Your task to perform on an android device: turn notification dots off Image 0: 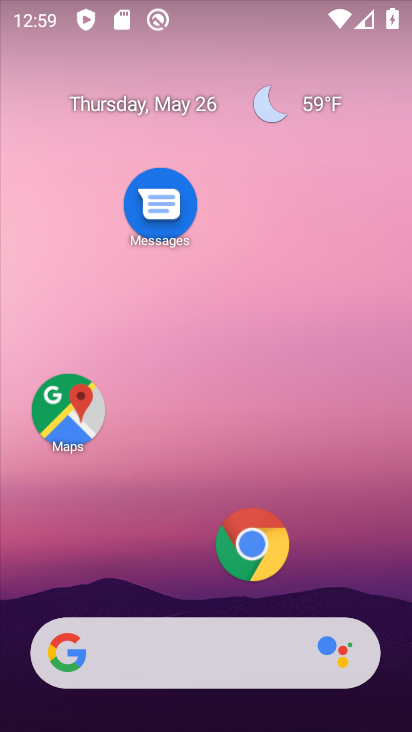
Step 0: drag from (345, 573) to (301, 50)
Your task to perform on an android device: turn notification dots off Image 1: 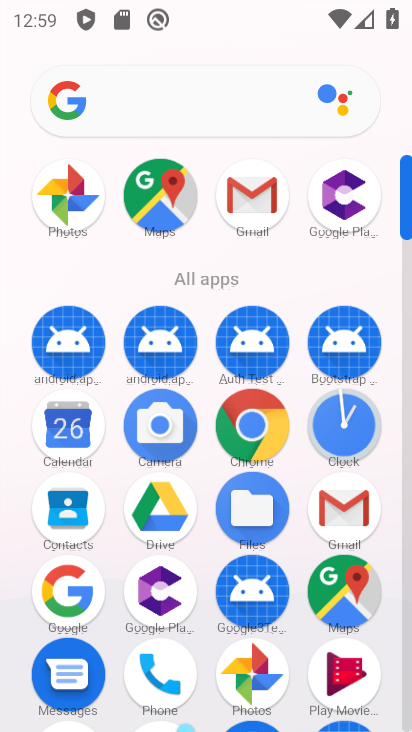
Step 1: click (267, 216)
Your task to perform on an android device: turn notification dots off Image 2: 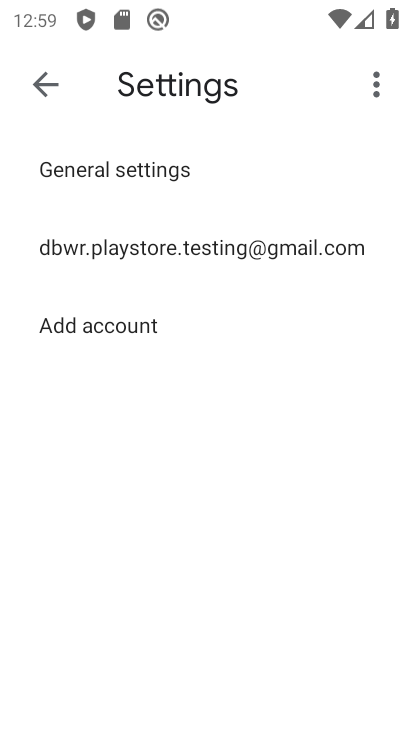
Step 2: click (138, 254)
Your task to perform on an android device: turn notification dots off Image 3: 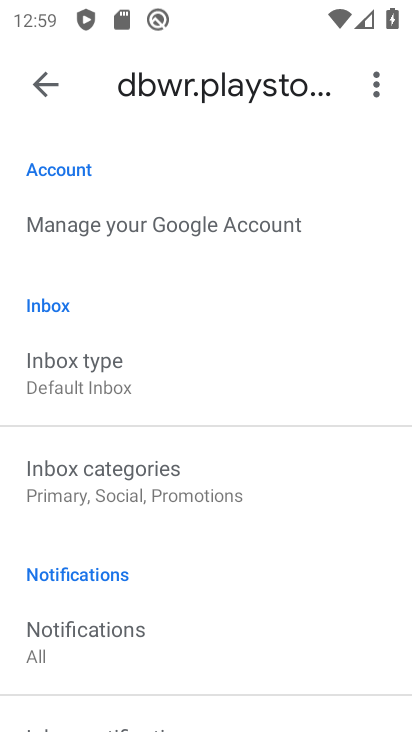
Step 3: click (181, 634)
Your task to perform on an android device: turn notification dots off Image 4: 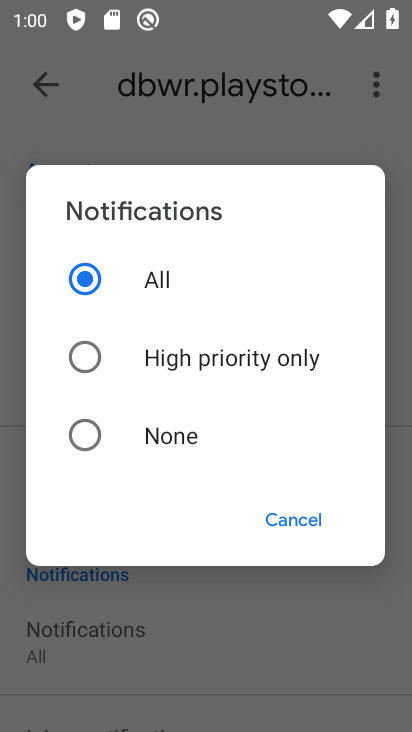
Step 4: click (150, 434)
Your task to perform on an android device: turn notification dots off Image 5: 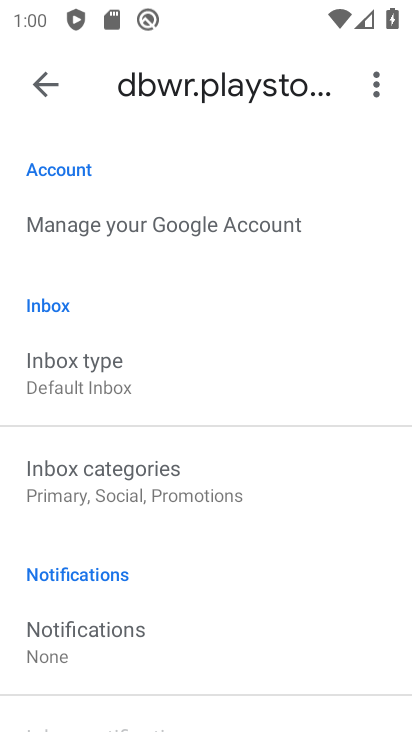
Step 5: task complete